Your task to perform on an android device: Open display settings Image 0: 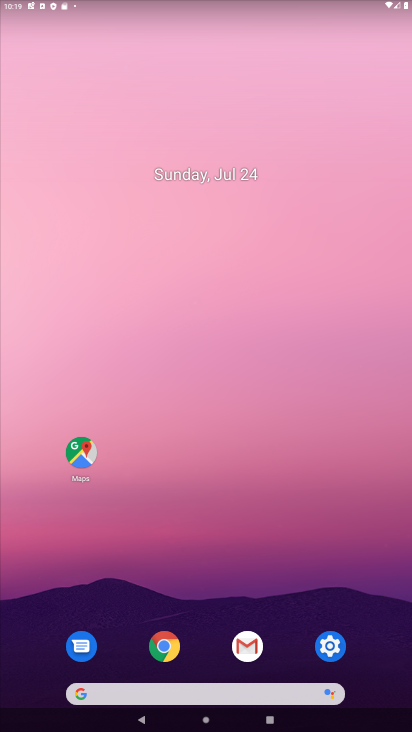
Step 0: click (326, 647)
Your task to perform on an android device: Open display settings Image 1: 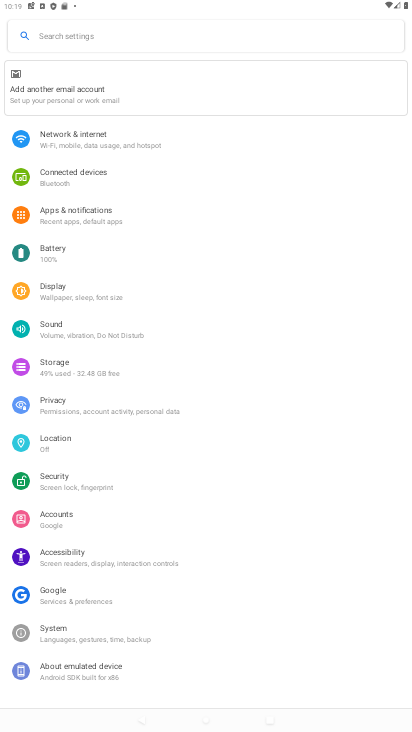
Step 1: click (78, 295)
Your task to perform on an android device: Open display settings Image 2: 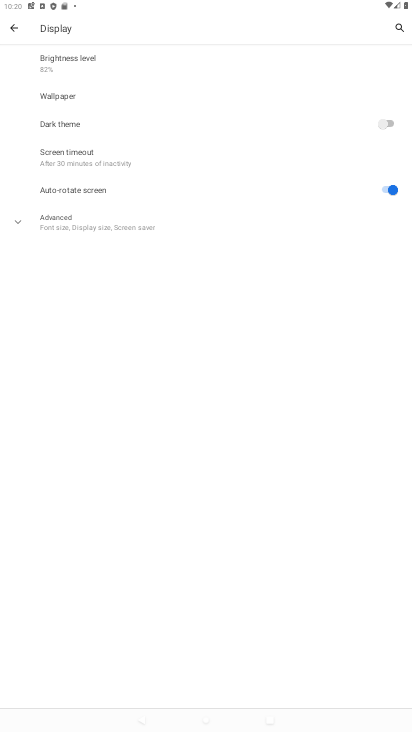
Step 2: task complete